Your task to perform on an android device: uninstall "NewsBreak: Local News & Alerts" Image 0: 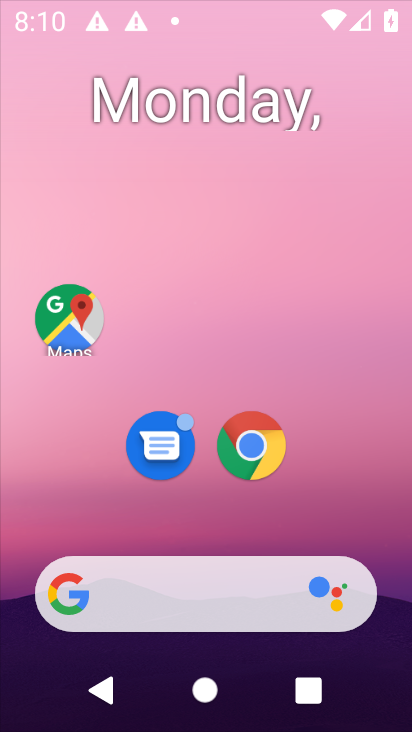
Step 0: drag from (372, 469) to (247, 77)
Your task to perform on an android device: uninstall "NewsBreak: Local News & Alerts" Image 1: 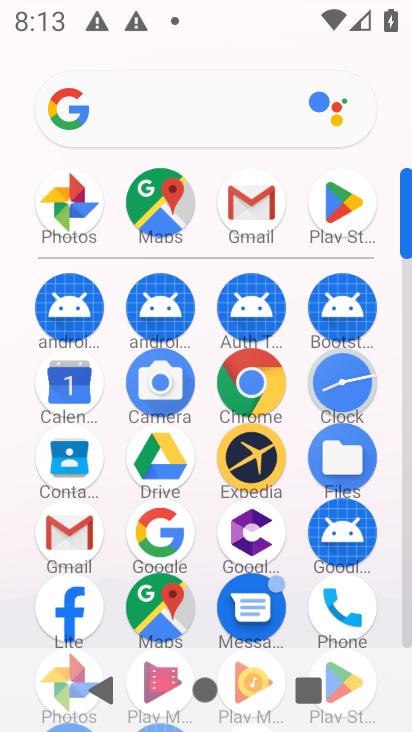
Step 1: click (337, 212)
Your task to perform on an android device: uninstall "NewsBreak: Local News & Alerts" Image 2: 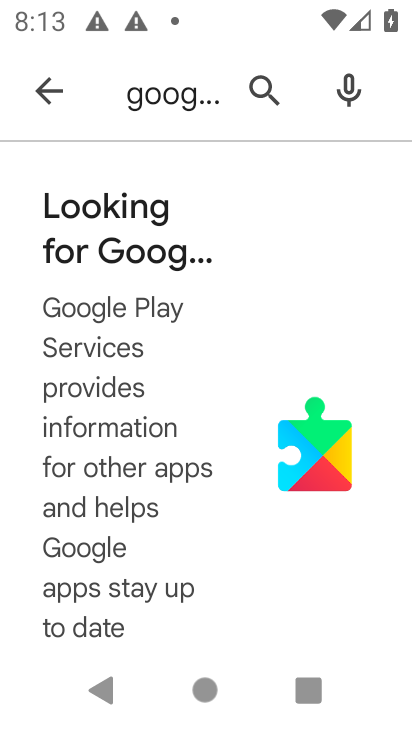
Step 2: press back button
Your task to perform on an android device: uninstall "NewsBreak: Local News & Alerts" Image 3: 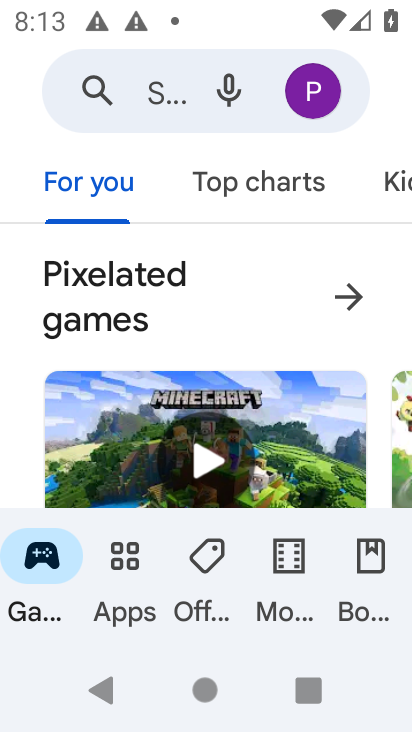
Step 3: click (153, 80)
Your task to perform on an android device: uninstall "NewsBreak: Local News & Alerts" Image 4: 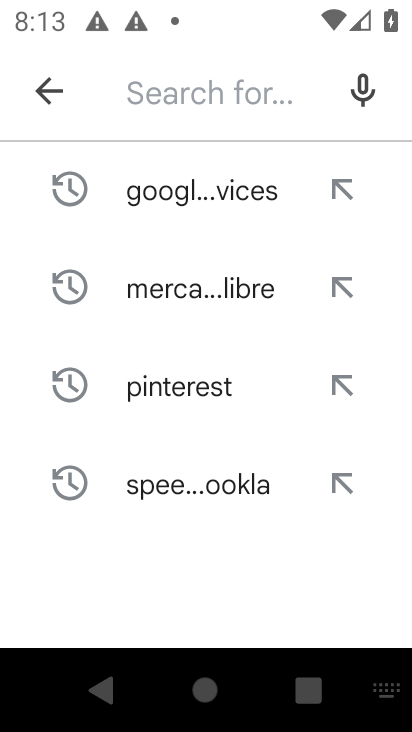
Step 4: type "NewsBreak: Local News & Alerts"
Your task to perform on an android device: uninstall "NewsBreak: Local News & Alerts" Image 5: 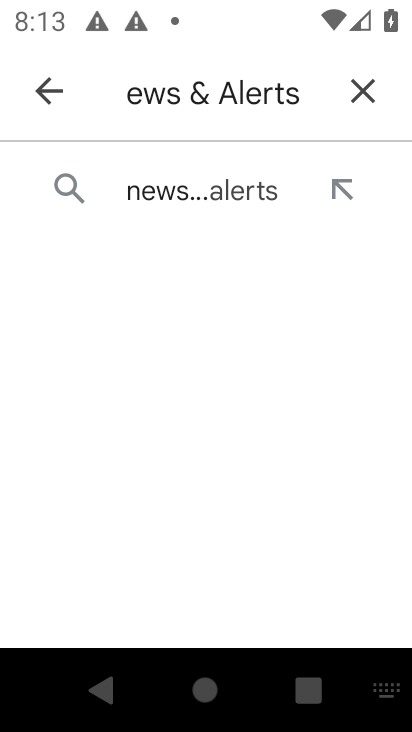
Step 5: click (198, 196)
Your task to perform on an android device: uninstall "NewsBreak: Local News & Alerts" Image 6: 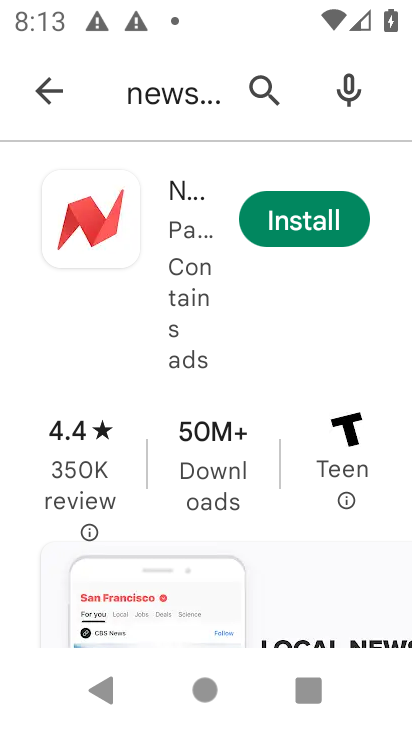
Step 6: task complete